Your task to perform on an android device: Search for Italian restaurants on Maps Image 0: 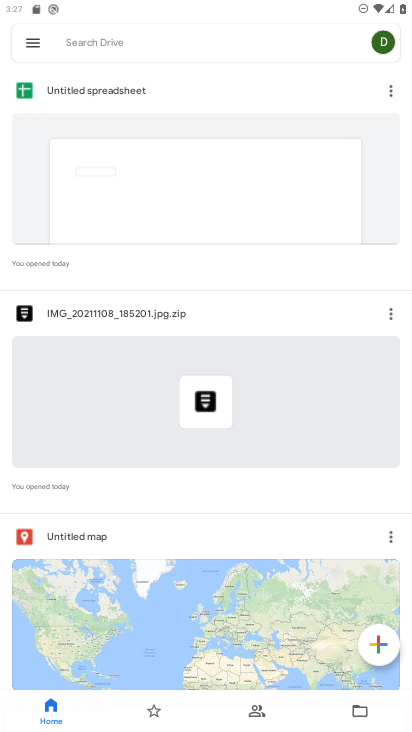
Step 0: press home button
Your task to perform on an android device: Search for Italian restaurants on Maps Image 1: 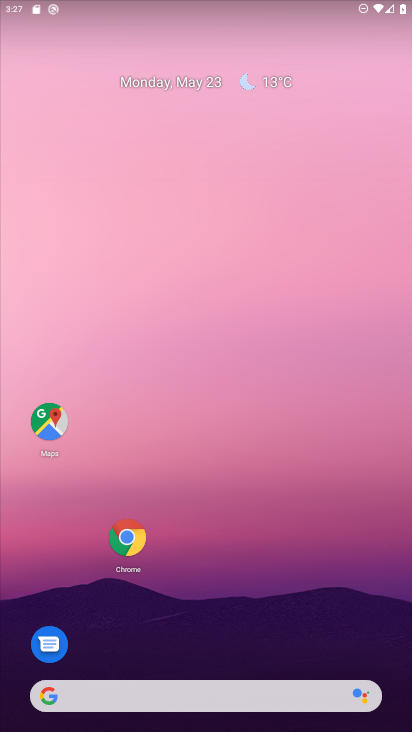
Step 1: click (41, 422)
Your task to perform on an android device: Search for Italian restaurants on Maps Image 2: 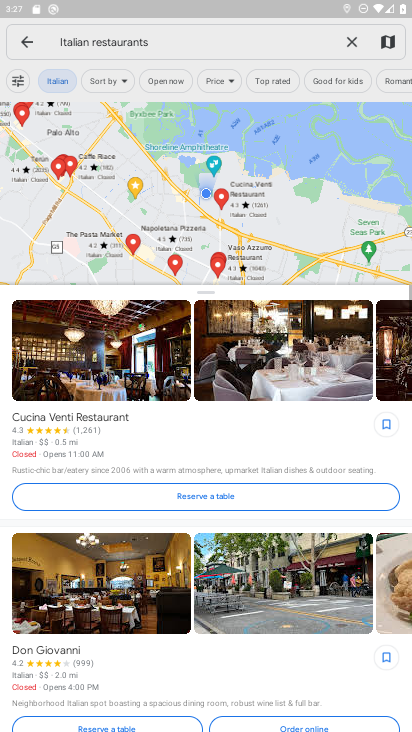
Step 2: task complete